Your task to perform on an android device: Open Amazon Image 0: 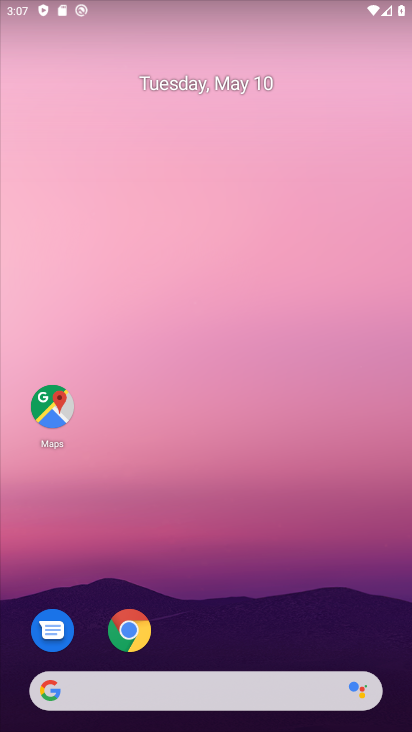
Step 0: drag from (291, 615) to (223, 42)
Your task to perform on an android device: Open Amazon Image 1: 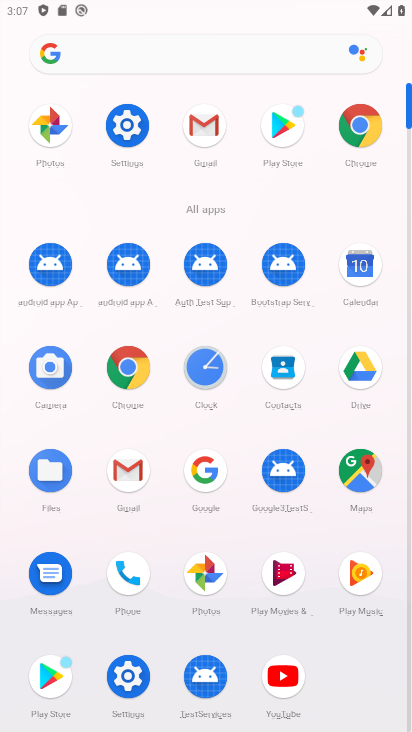
Step 1: click (372, 681)
Your task to perform on an android device: Open Amazon Image 2: 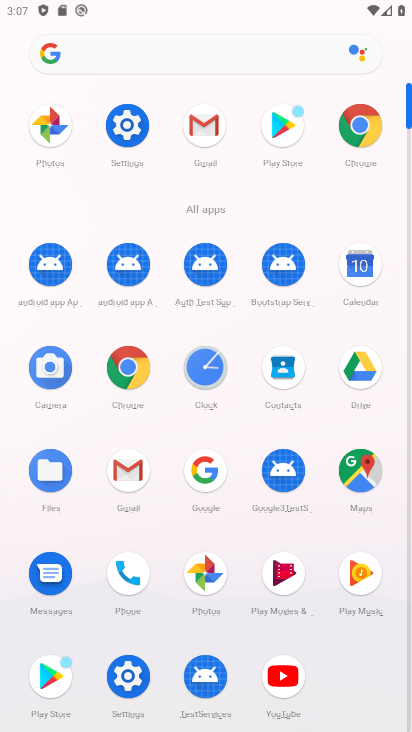
Step 2: click (372, 681)
Your task to perform on an android device: Open Amazon Image 3: 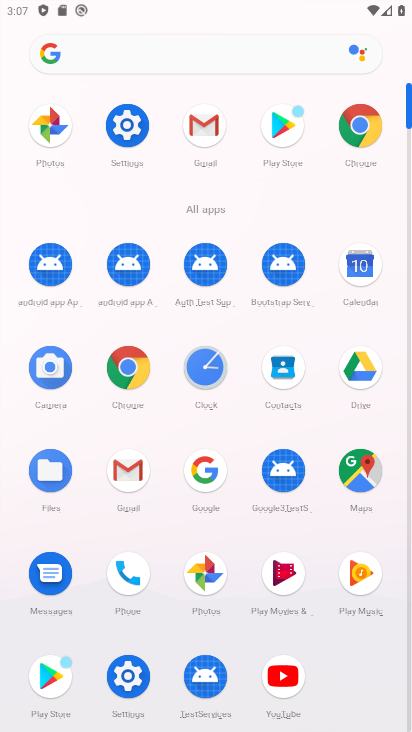
Step 3: click (125, 364)
Your task to perform on an android device: Open Amazon Image 4: 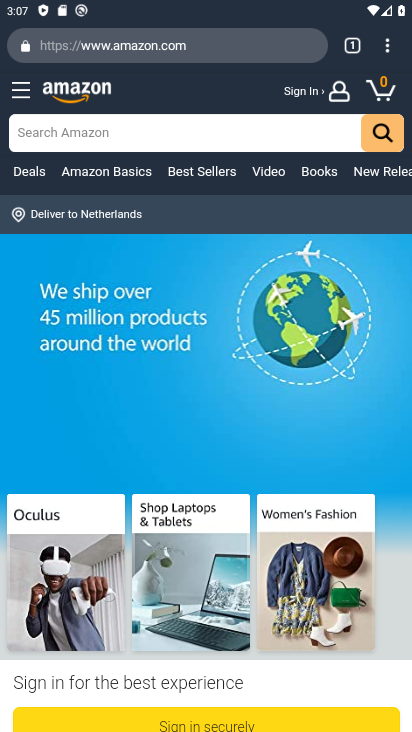
Step 4: task complete